Your task to perform on an android device: add a label to a message in the gmail app Image 0: 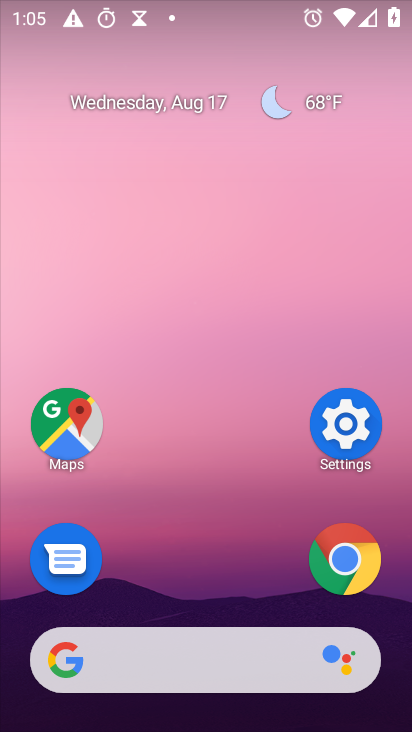
Step 0: drag from (224, 621) to (245, 99)
Your task to perform on an android device: add a label to a message in the gmail app Image 1: 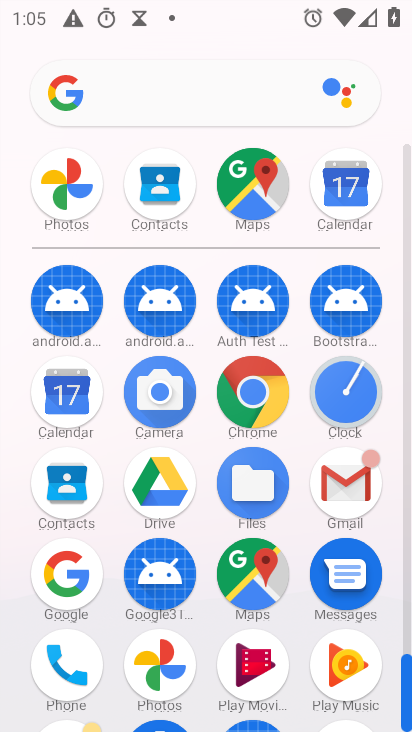
Step 1: click (344, 498)
Your task to perform on an android device: add a label to a message in the gmail app Image 2: 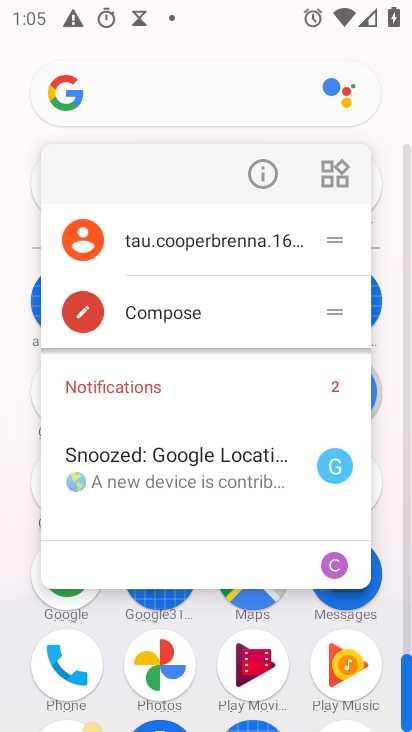
Step 2: click (373, 487)
Your task to perform on an android device: add a label to a message in the gmail app Image 3: 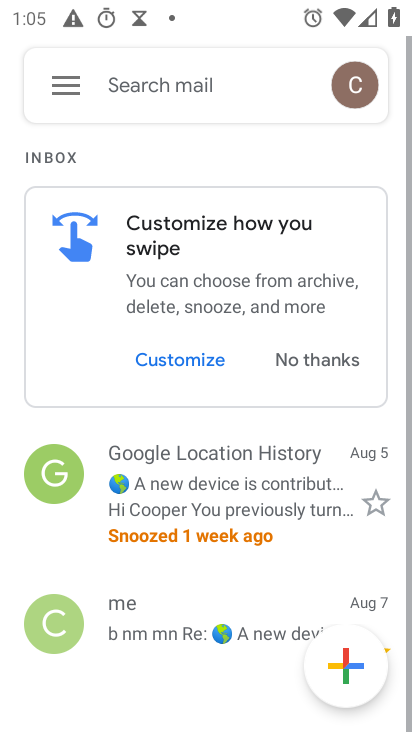
Step 3: drag from (245, 551) to (258, 352)
Your task to perform on an android device: add a label to a message in the gmail app Image 4: 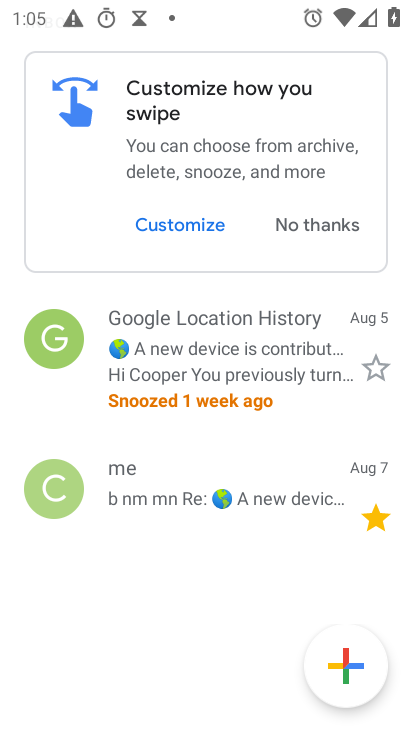
Step 4: click (59, 334)
Your task to perform on an android device: add a label to a message in the gmail app Image 5: 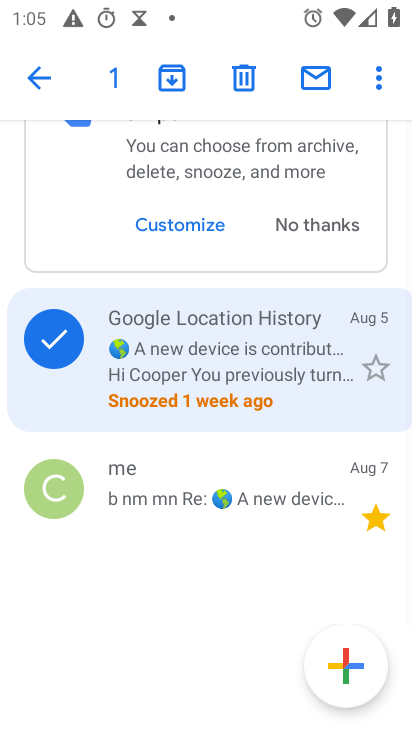
Step 5: click (380, 70)
Your task to perform on an android device: add a label to a message in the gmail app Image 6: 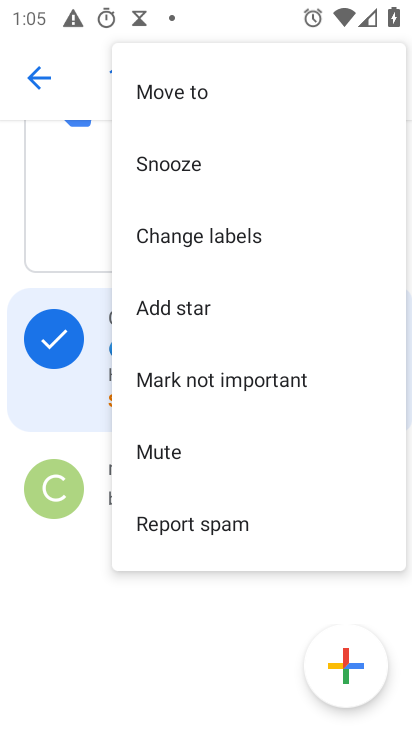
Step 6: click (119, 643)
Your task to perform on an android device: add a label to a message in the gmail app Image 7: 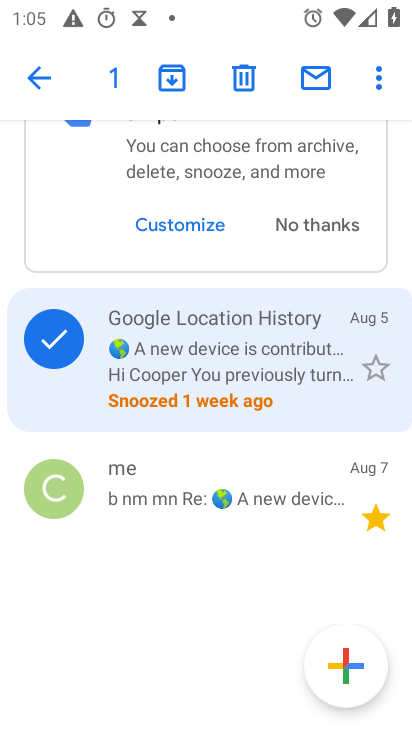
Step 7: drag from (168, 510) to (181, 676)
Your task to perform on an android device: add a label to a message in the gmail app Image 8: 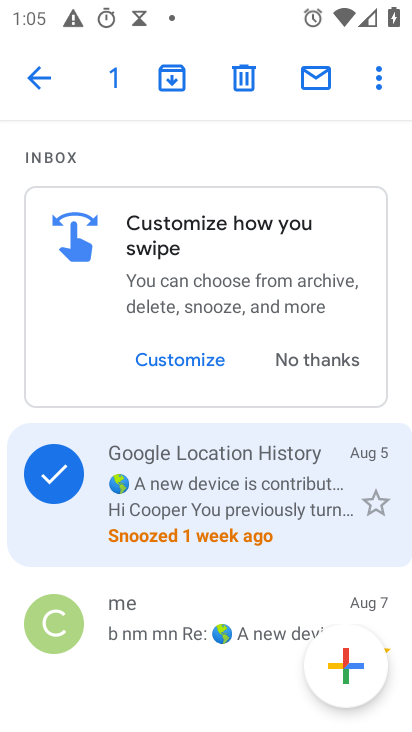
Step 8: click (173, 470)
Your task to perform on an android device: add a label to a message in the gmail app Image 9: 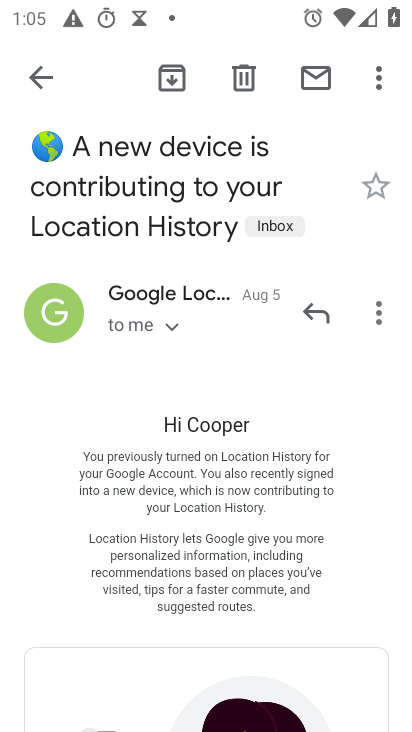
Step 9: click (289, 224)
Your task to perform on an android device: add a label to a message in the gmail app Image 10: 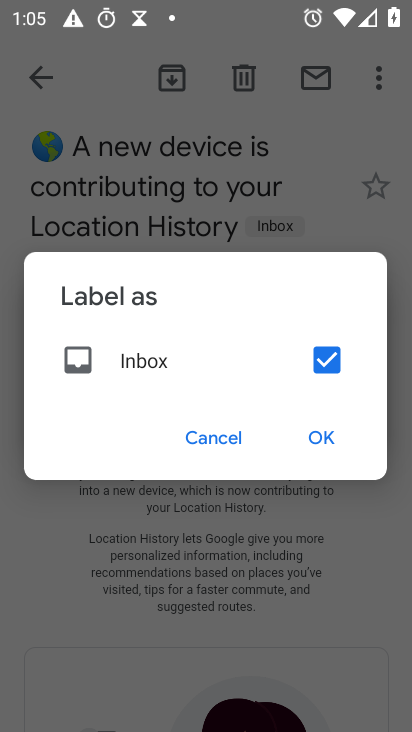
Step 10: click (322, 437)
Your task to perform on an android device: add a label to a message in the gmail app Image 11: 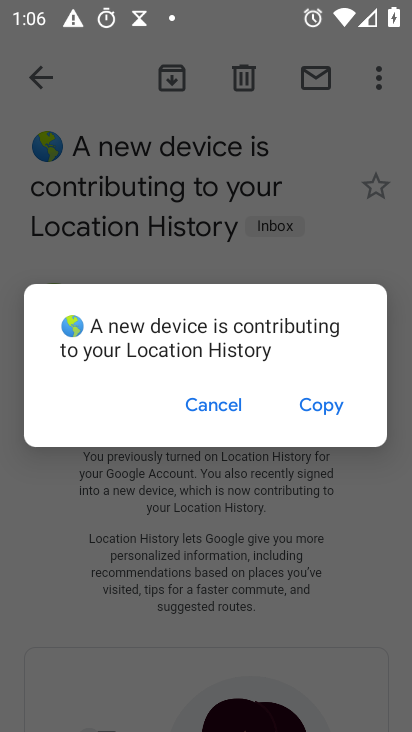
Step 11: click (214, 398)
Your task to perform on an android device: add a label to a message in the gmail app Image 12: 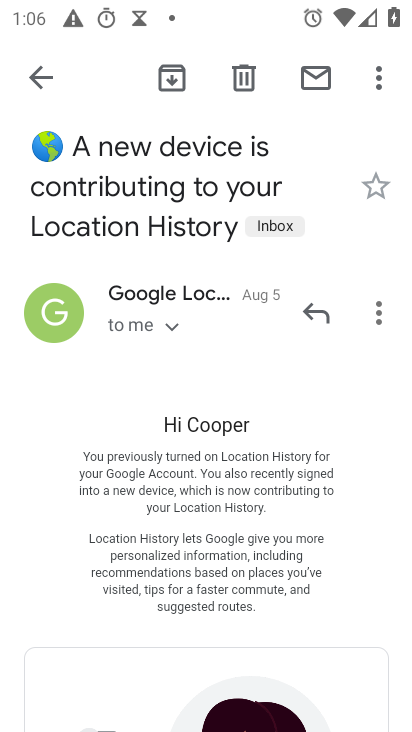
Step 12: task complete